Your task to perform on an android device: Go to Android settings Image 0: 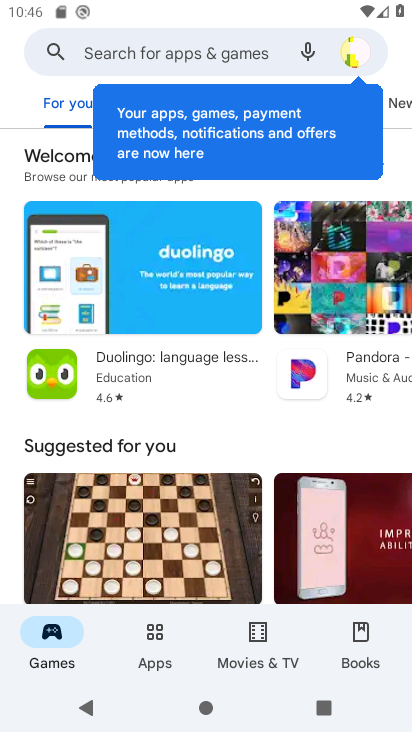
Step 0: press back button
Your task to perform on an android device: Go to Android settings Image 1: 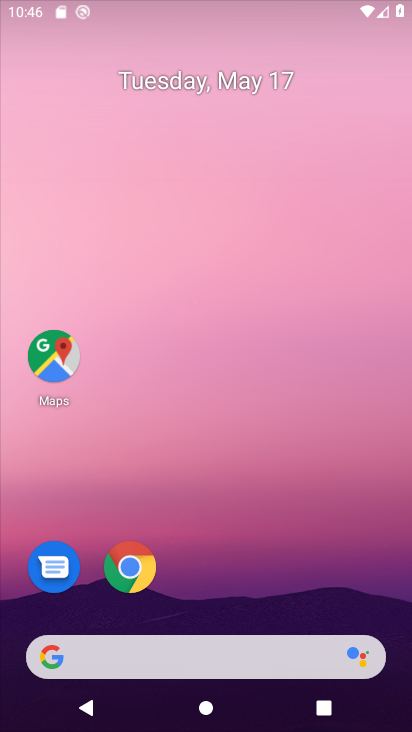
Step 1: drag from (85, 584) to (147, 35)
Your task to perform on an android device: Go to Android settings Image 2: 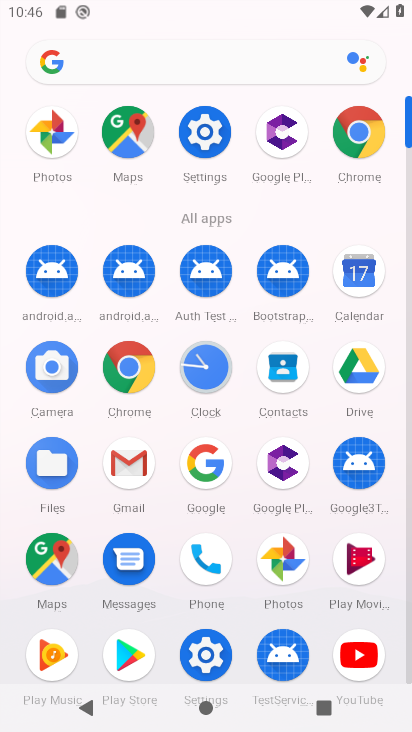
Step 2: click (202, 132)
Your task to perform on an android device: Go to Android settings Image 3: 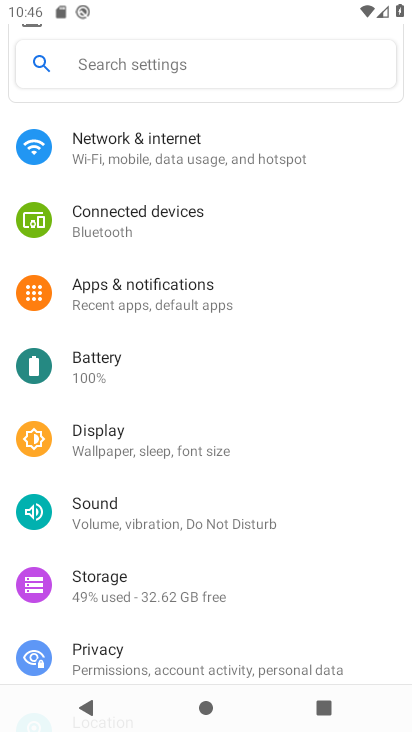
Step 3: drag from (181, 637) to (277, 77)
Your task to perform on an android device: Go to Android settings Image 4: 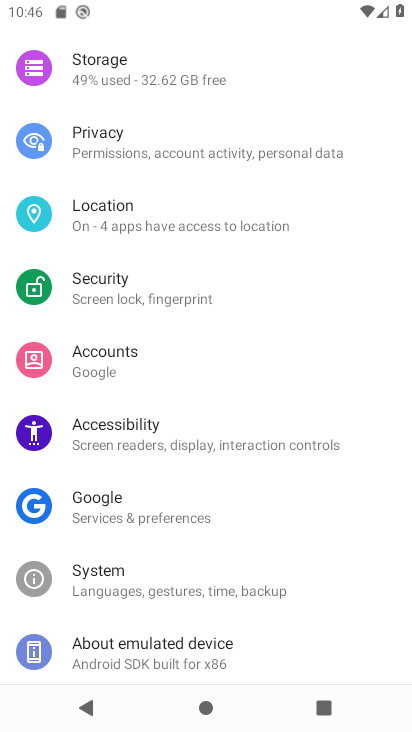
Step 4: drag from (197, 585) to (278, 38)
Your task to perform on an android device: Go to Android settings Image 5: 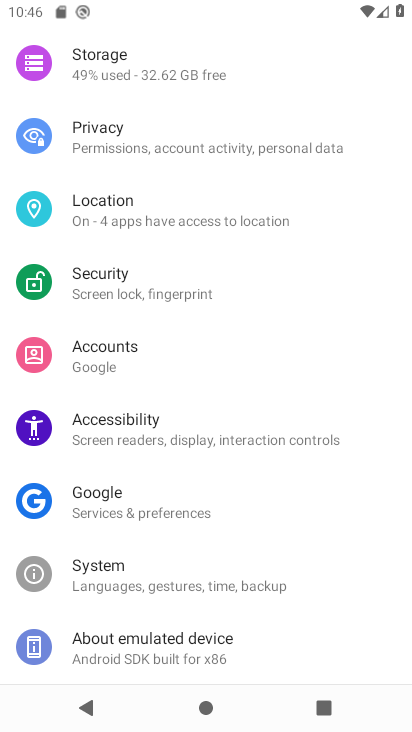
Step 5: drag from (158, 646) to (216, 71)
Your task to perform on an android device: Go to Android settings Image 6: 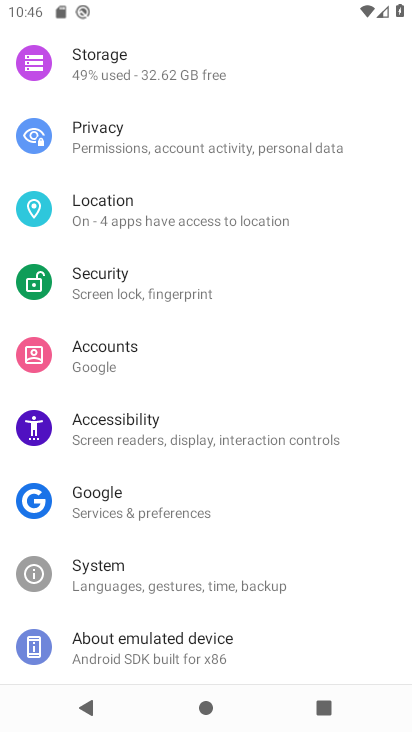
Step 6: click (137, 649)
Your task to perform on an android device: Go to Android settings Image 7: 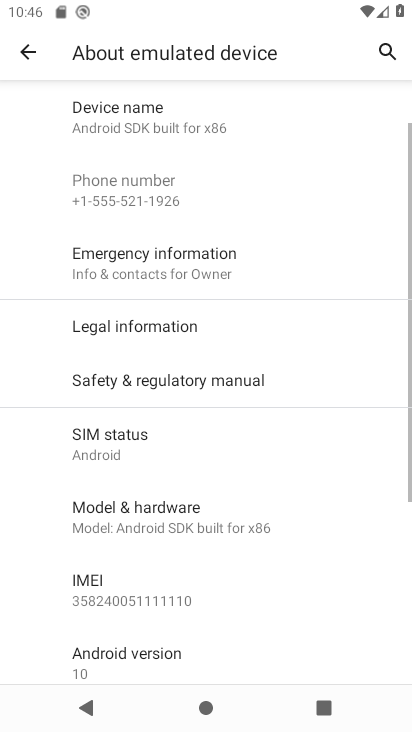
Step 7: click (127, 649)
Your task to perform on an android device: Go to Android settings Image 8: 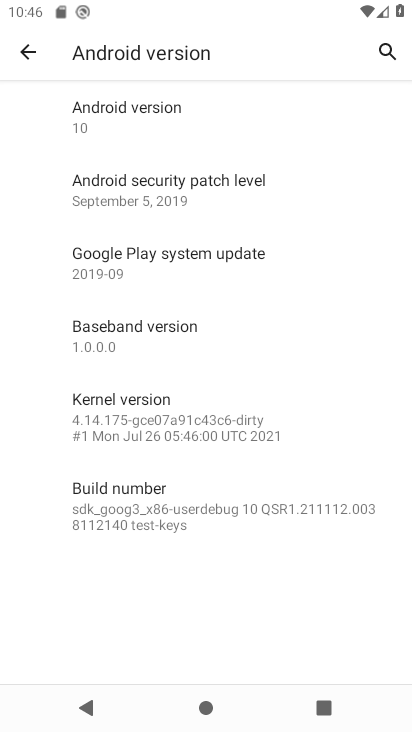
Step 8: task complete